Your task to perform on an android device: turn pop-ups on in chrome Image 0: 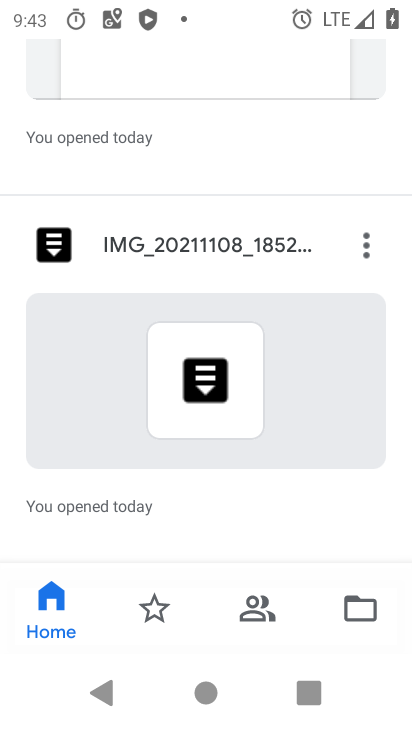
Step 0: drag from (225, 554) to (261, 197)
Your task to perform on an android device: turn pop-ups on in chrome Image 1: 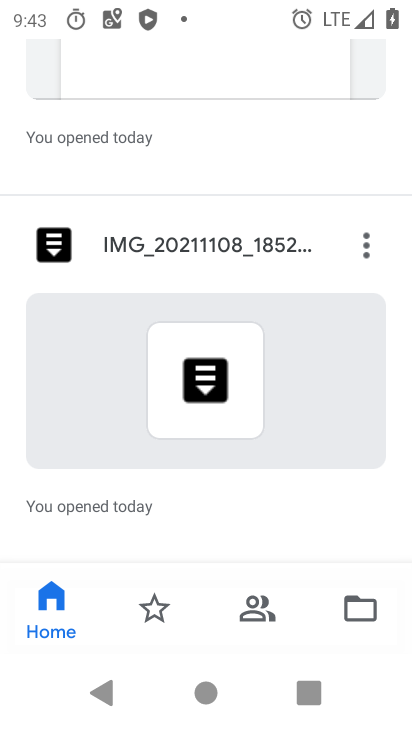
Step 1: drag from (232, 490) to (283, 205)
Your task to perform on an android device: turn pop-ups on in chrome Image 2: 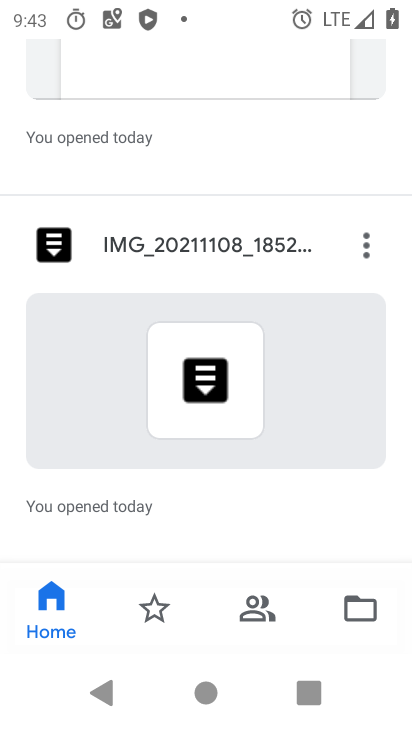
Step 2: drag from (205, 521) to (232, 119)
Your task to perform on an android device: turn pop-ups on in chrome Image 3: 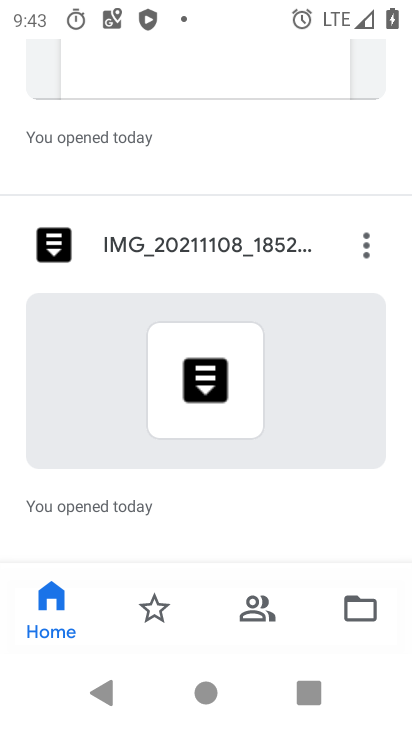
Step 3: drag from (174, 133) to (305, 635)
Your task to perform on an android device: turn pop-ups on in chrome Image 4: 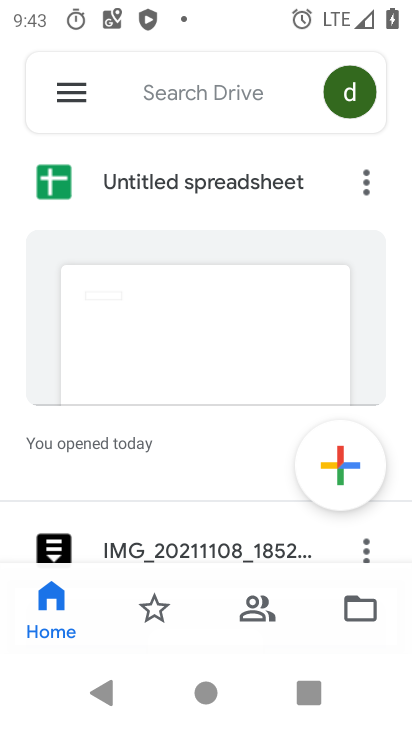
Step 4: press home button
Your task to perform on an android device: turn pop-ups on in chrome Image 5: 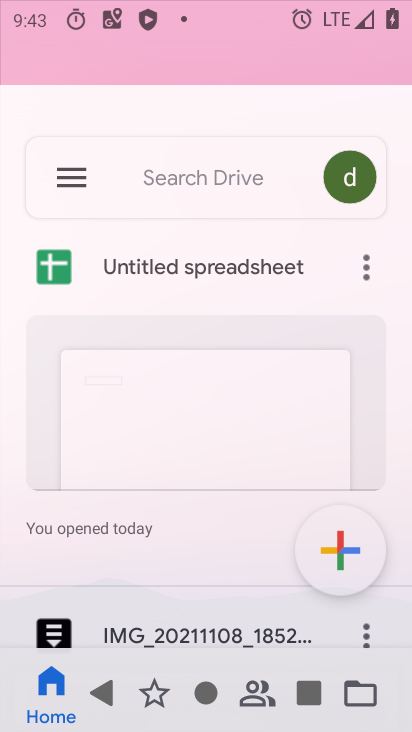
Step 5: drag from (224, 507) to (288, 79)
Your task to perform on an android device: turn pop-ups on in chrome Image 6: 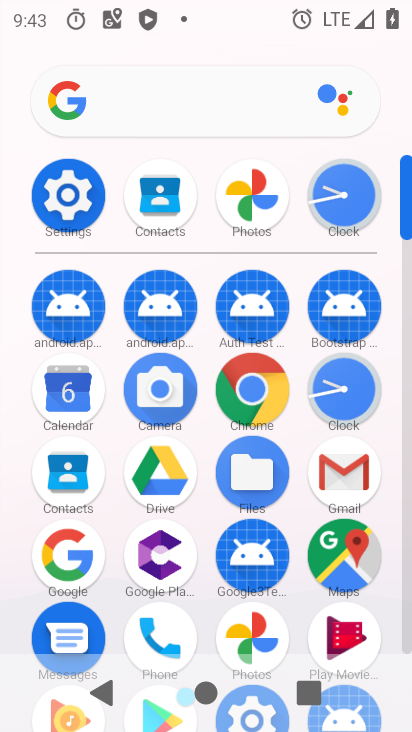
Step 6: click (264, 377)
Your task to perform on an android device: turn pop-ups on in chrome Image 7: 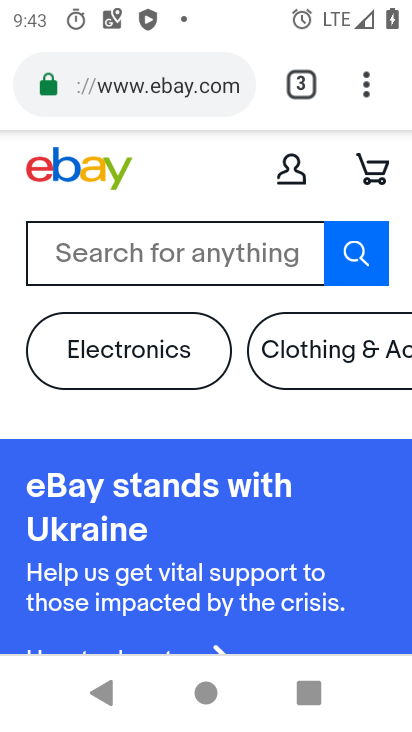
Step 7: drag from (369, 85) to (140, 539)
Your task to perform on an android device: turn pop-ups on in chrome Image 8: 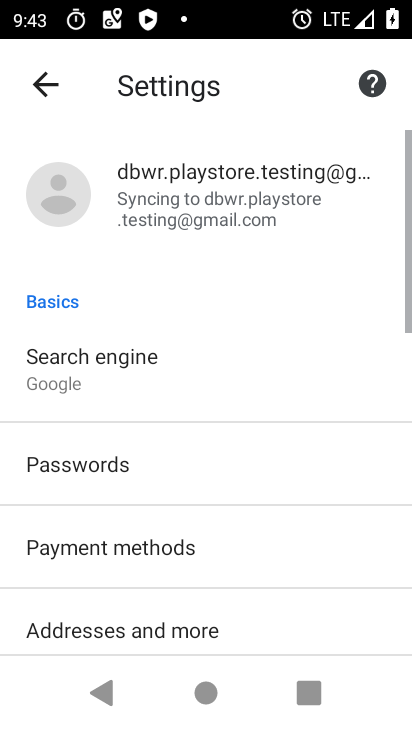
Step 8: drag from (183, 557) to (227, 154)
Your task to perform on an android device: turn pop-ups on in chrome Image 9: 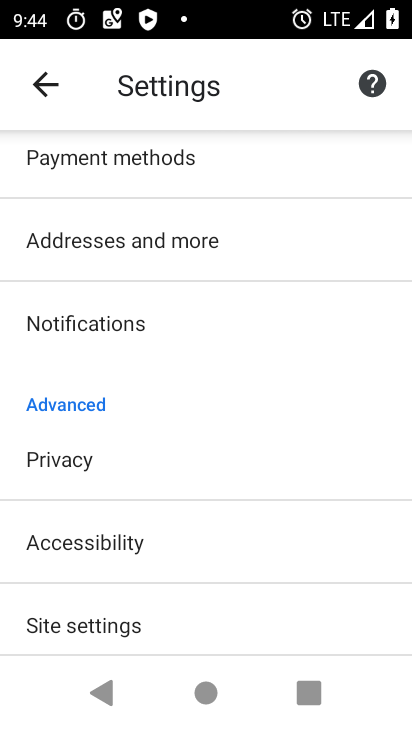
Step 9: drag from (188, 556) to (239, 201)
Your task to perform on an android device: turn pop-ups on in chrome Image 10: 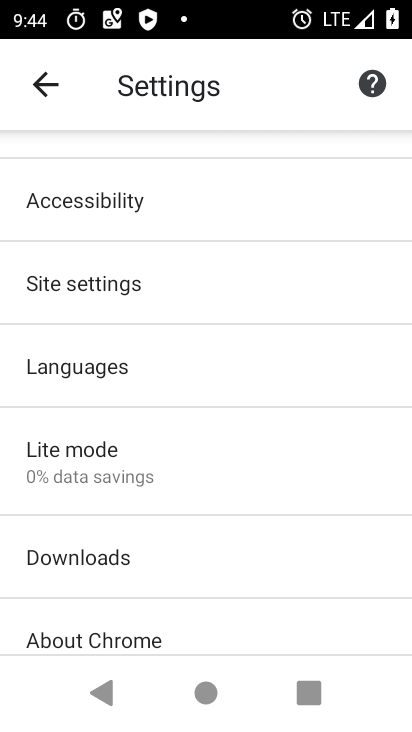
Step 10: click (145, 279)
Your task to perform on an android device: turn pop-ups on in chrome Image 11: 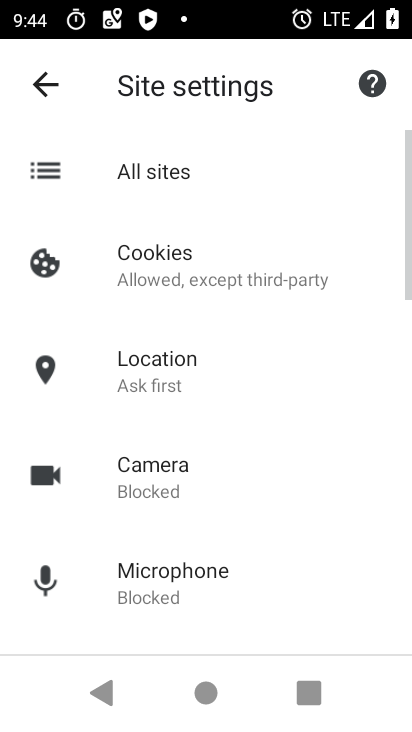
Step 11: drag from (189, 590) to (259, 130)
Your task to perform on an android device: turn pop-ups on in chrome Image 12: 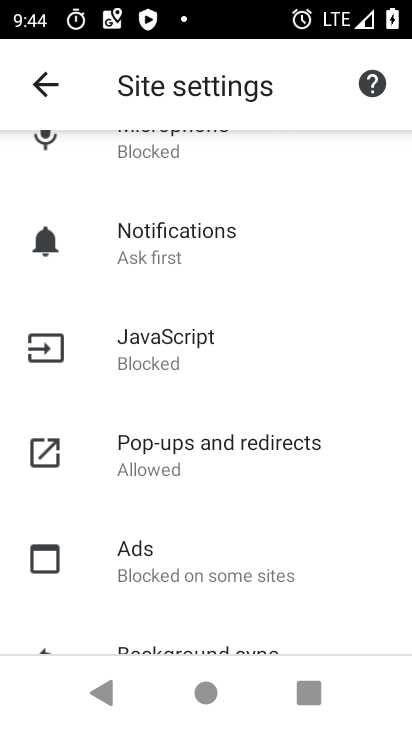
Step 12: click (172, 455)
Your task to perform on an android device: turn pop-ups on in chrome Image 13: 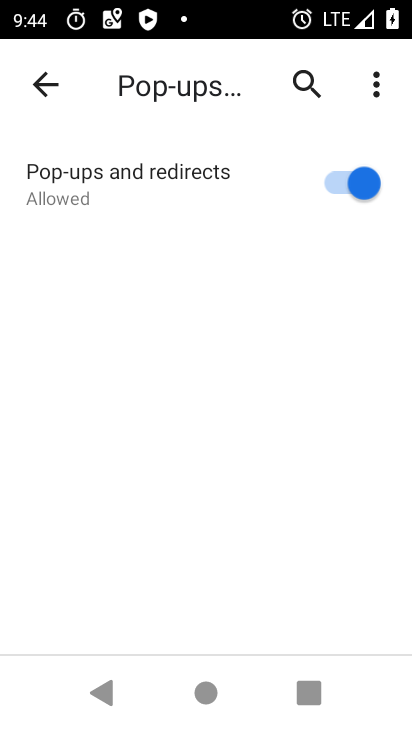
Step 13: task complete